Your task to perform on an android device: Search for usb-c to usb-b on costco.com, select the first entry, and add it to the cart. Image 0: 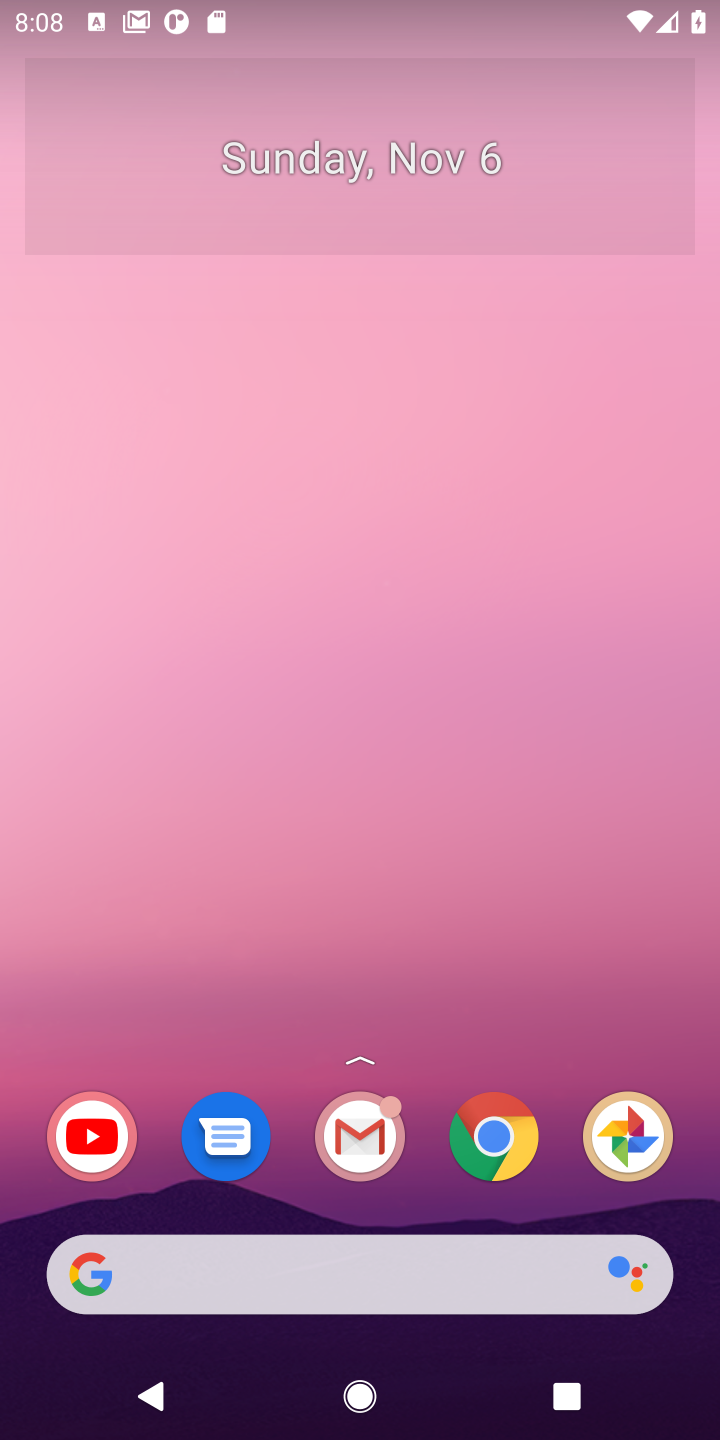
Step 0: click (220, 1288)
Your task to perform on an android device: Search for usb-c to usb-b on costco.com, select the first entry, and add it to the cart. Image 1: 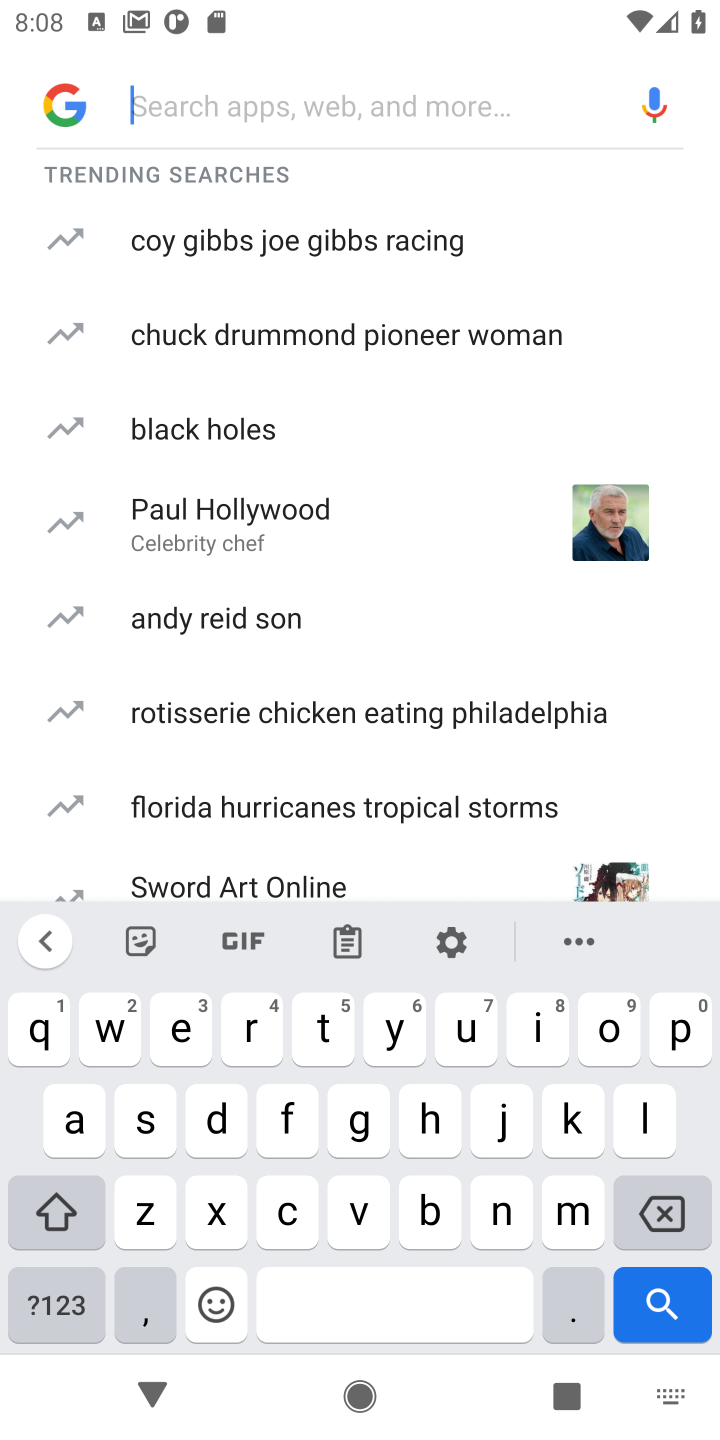
Step 1: type "costco"
Your task to perform on an android device: Search for usb-c to usb-b on costco.com, select the first entry, and add it to the cart. Image 2: 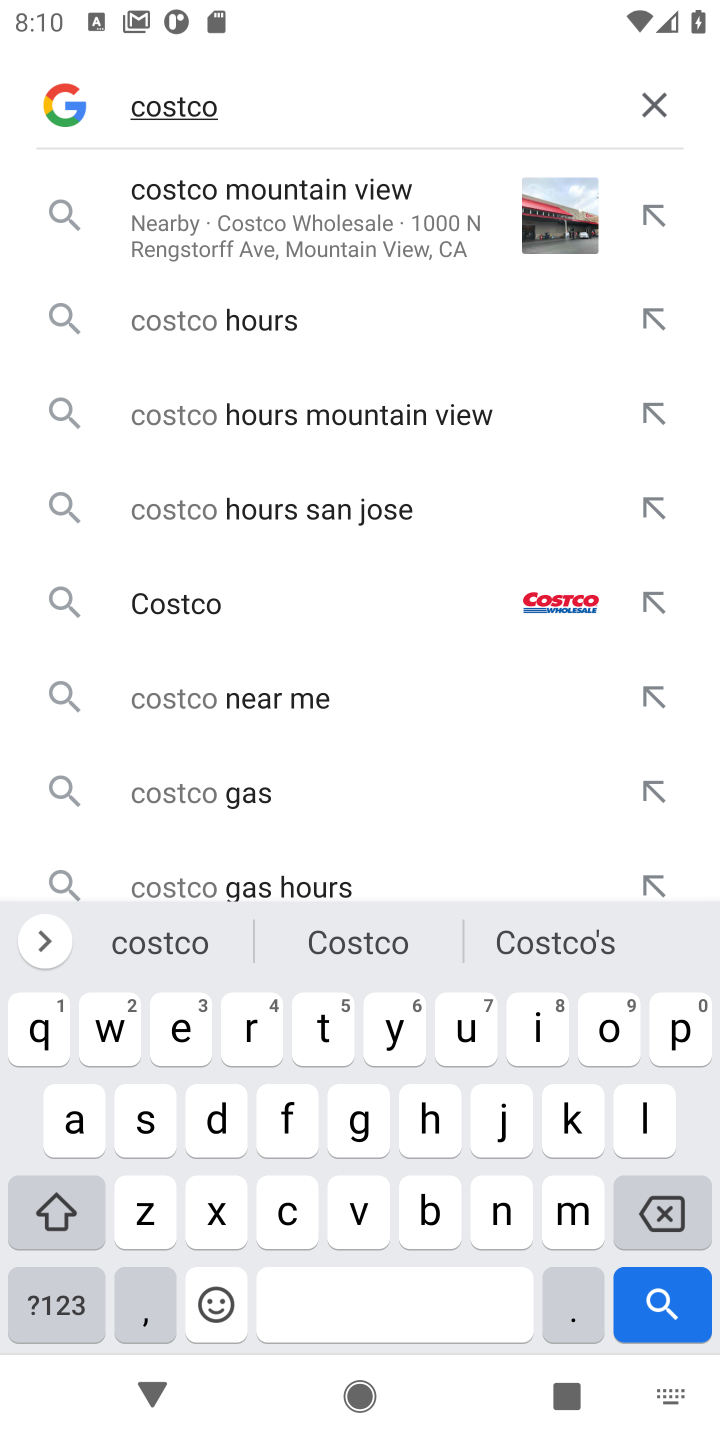
Step 2: click (225, 596)
Your task to perform on an android device: Search for usb-c to usb-b on costco.com, select the first entry, and add it to the cart. Image 3: 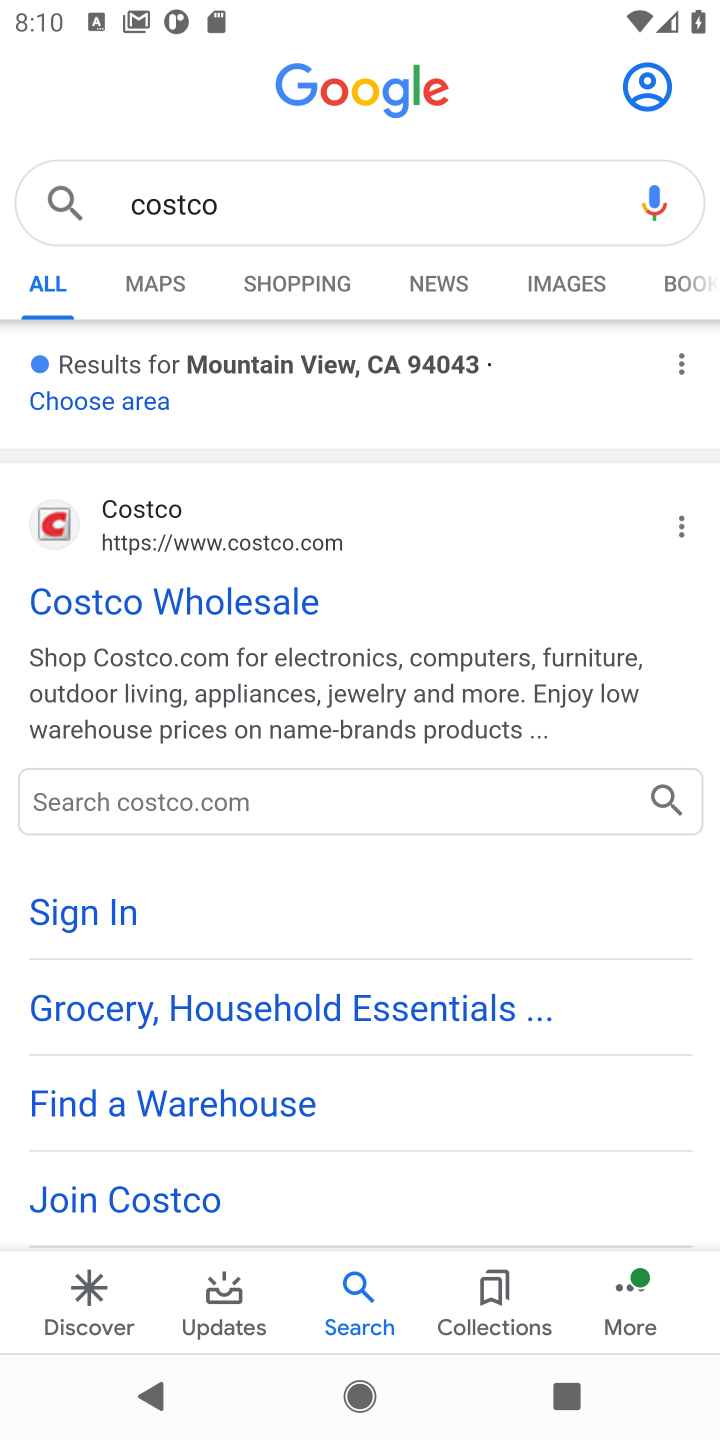
Step 3: click (225, 596)
Your task to perform on an android device: Search for usb-c to usb-b on costco.com, select the first entry, and add it to the cart. Image 4: 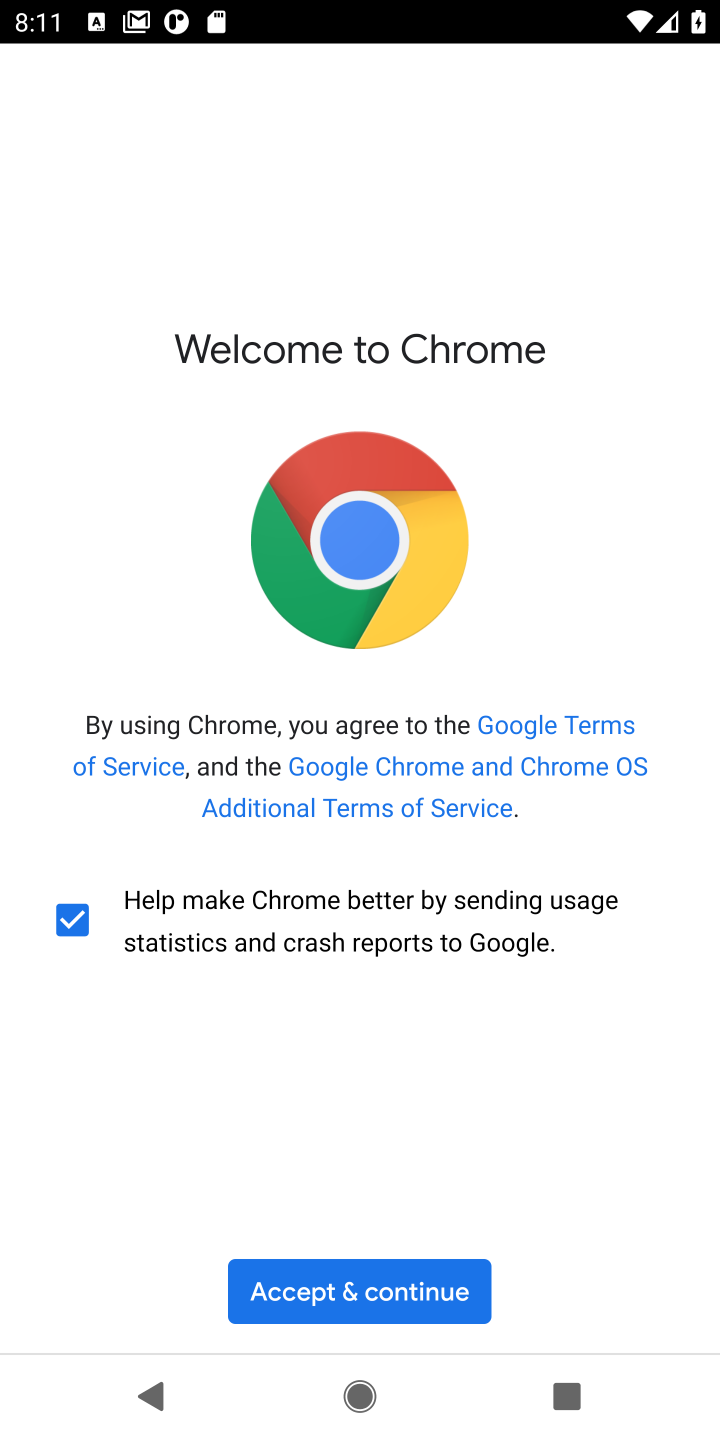
Step 4: task complete